Your task to perform on an android device: Search for Italian restaurants on Maps Image 0: 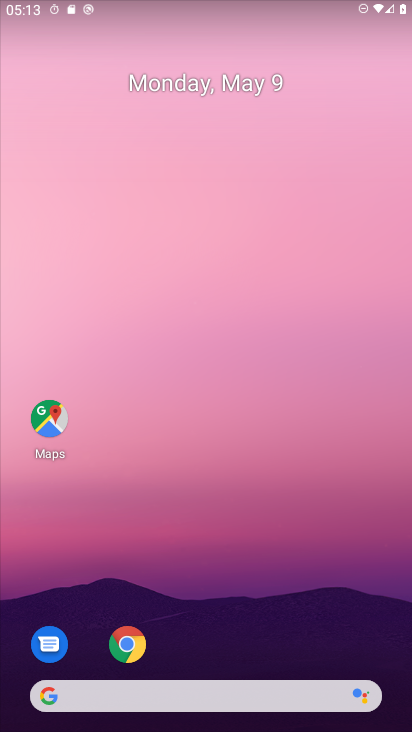
Step 0: click (50, 416)
Your task to perform on an android device: Search for Italian restaurants on Maps Image 1: 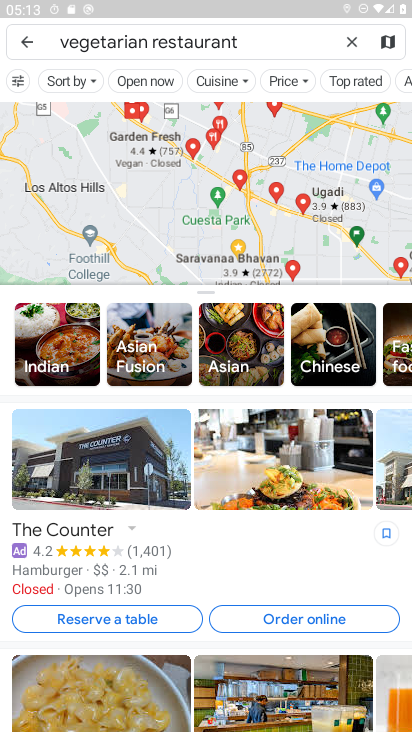
Step 1: click (268, 38)
Your task to perform on an android device: Search for Italian restaurants on Maps Image 2: 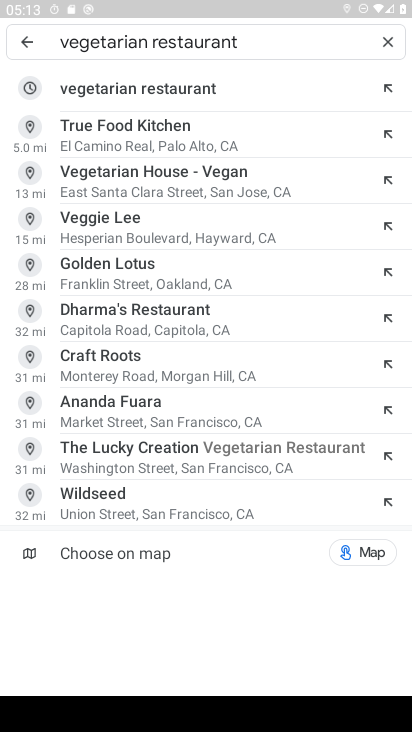
Step 2: click (389, 40)
Your task to perform on an android device: Search for Italian restaurants on Maps Image 3: 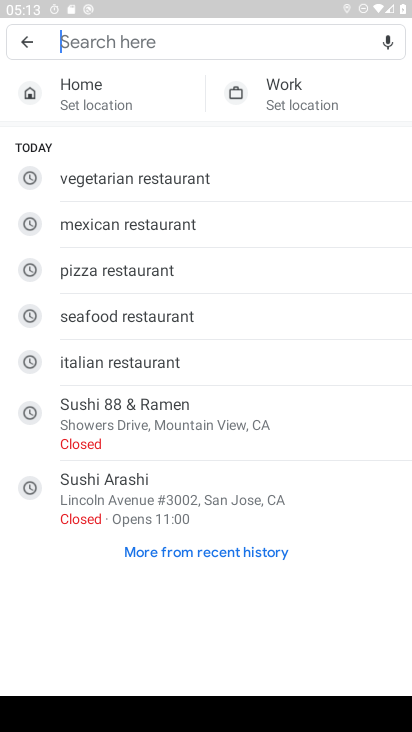
Step 3: click (79, 365)
Your task to perform on an android device: Search for Italian restaurants on Maps Image 4: 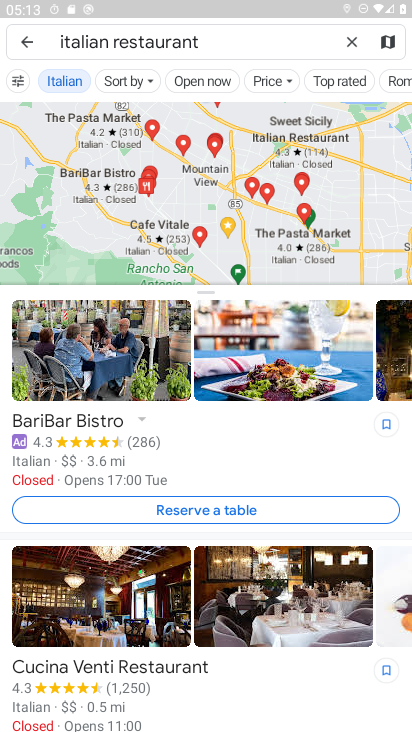
Step 4: task complete